Your task to perform on an android device: toggle location history Image 0: 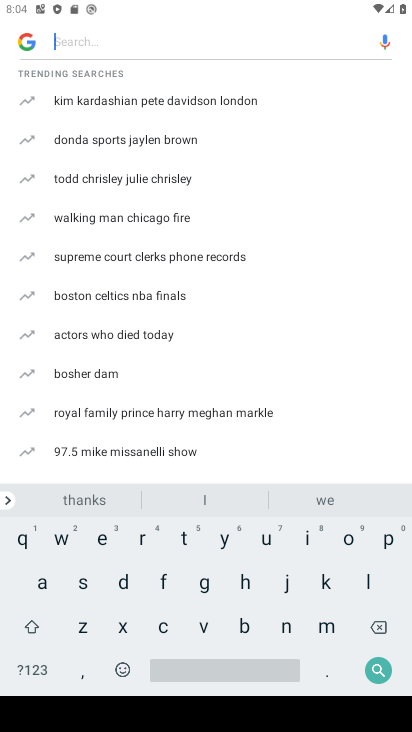
Step 0: press home button
Your task to perform on an android device: toggle location history Image 1: 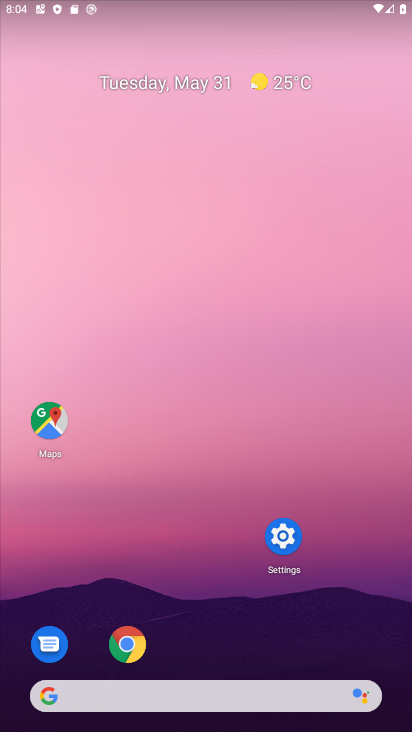
Step 1: drag from (241, 704) to (225, 402)
Your task to perform on an android device: toggle location history Image 2: 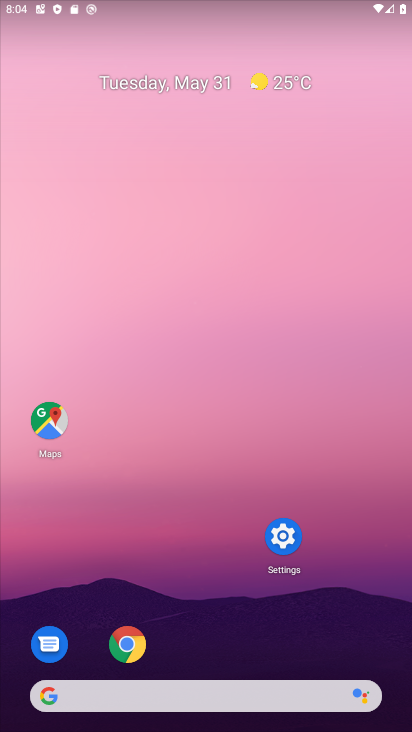
Step 2: drag from (199, 714) to (221, 88)
Your task to perform on an android device: toggle location history Image 3: 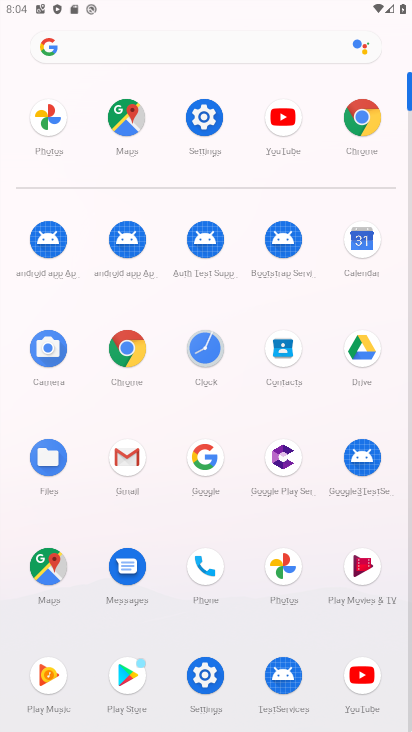
Step 3: click (207, 667)
Your task to perform on an android device: toggle location history Image 4: 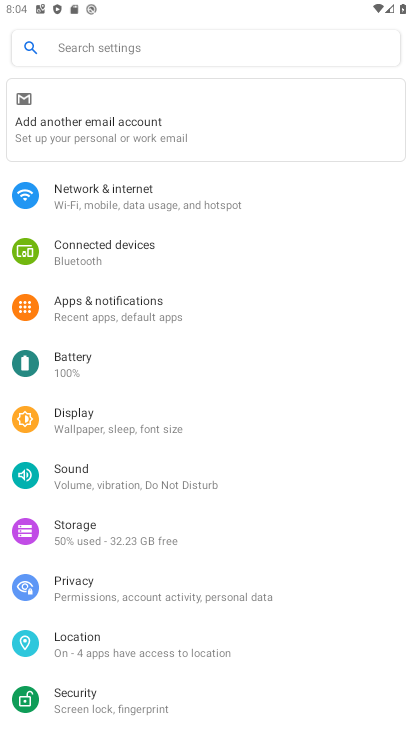
Step 4: click (165, 49)
Your task to perform on an android device: toggle location history Image 5: 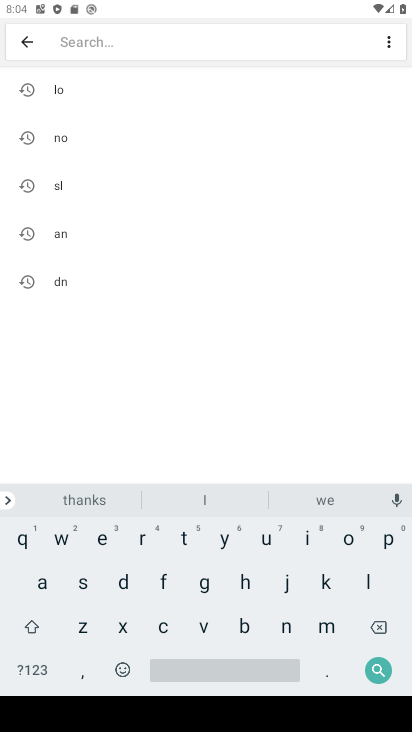
Step 5: click (372, 582)
Your task to perform on an android device: toggle location history Image 6: 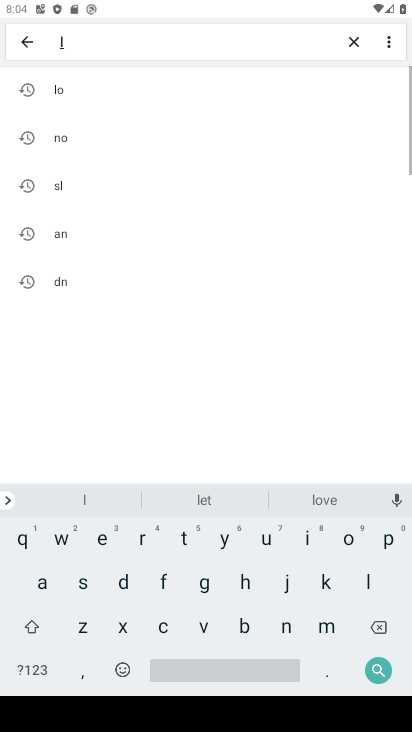
Step 6: click (352, 539)
Your task to perform on an android device: toggle location history Image 7: 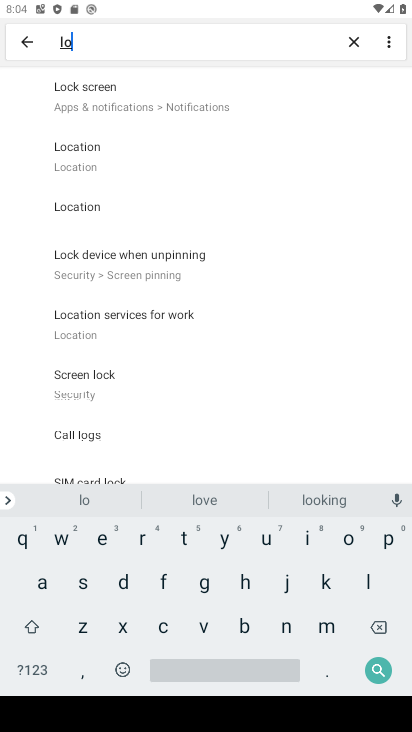
Step 7: click (92, 147)
Your task to perform on an android device: toggle location history Image 8: 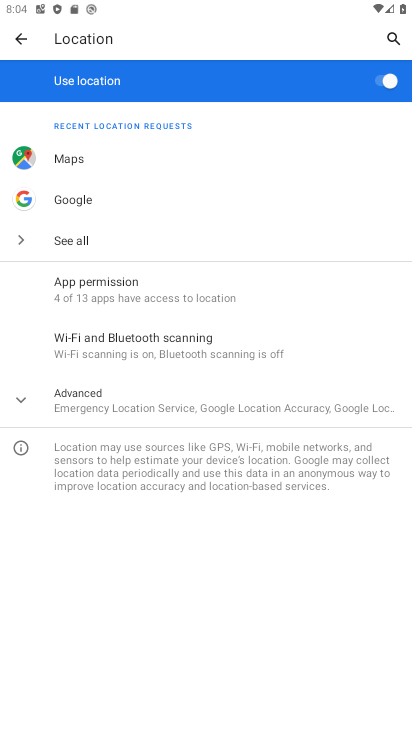
Step 8: click (43, 394)
Your task to perform on an android device: toggle location history Image 9: 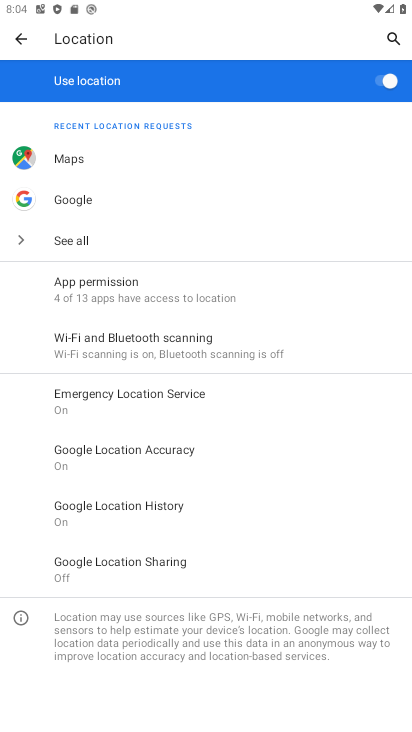
Step 9: click (108, 504)
Your task to perform on an android device: toggle location history Image 10: 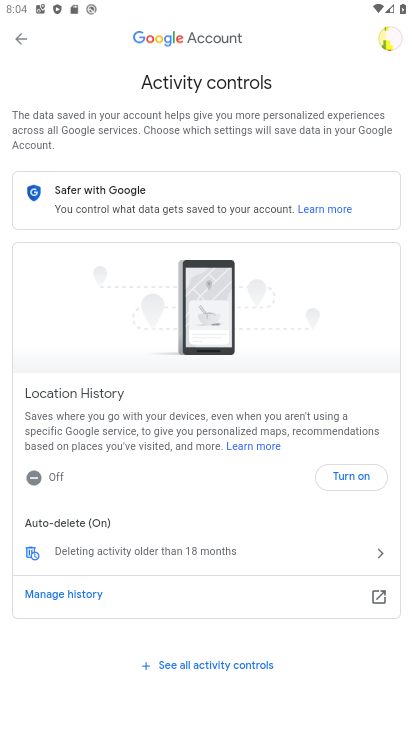
Step 10: task complete